Your task to perform on an android device: toggle translation in the chrome app Image 0: 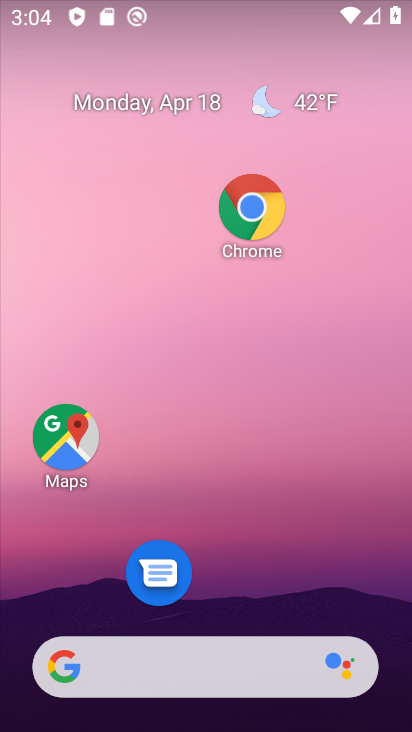
Step 0: click (368, 196)
Your task to perform on an android device: toggle translation in the chrome app Image 1: 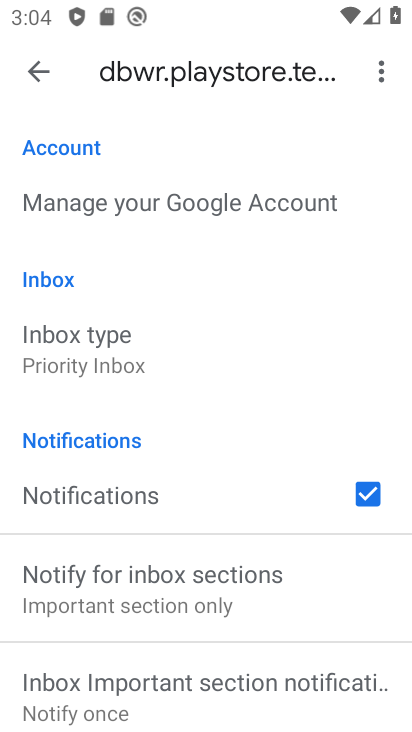
Step 1: drag from (120, 558) to (201, 379)
Your task to perform on an android device: toggle translation in the chrome app Image 2: 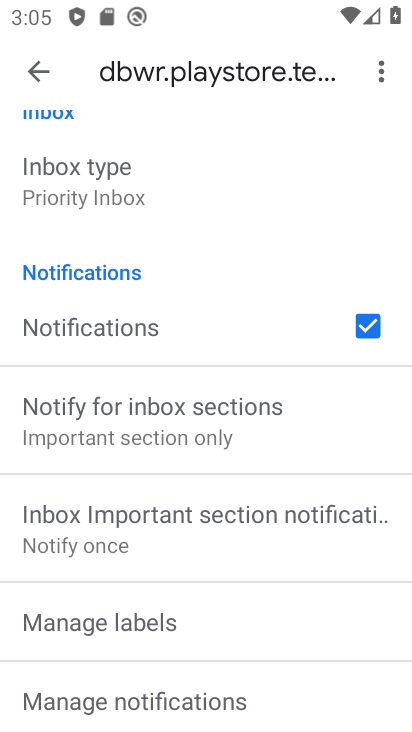
Step 2: press home button
Your task to perform on an android device: toggle translation in the chrome app Image 3: 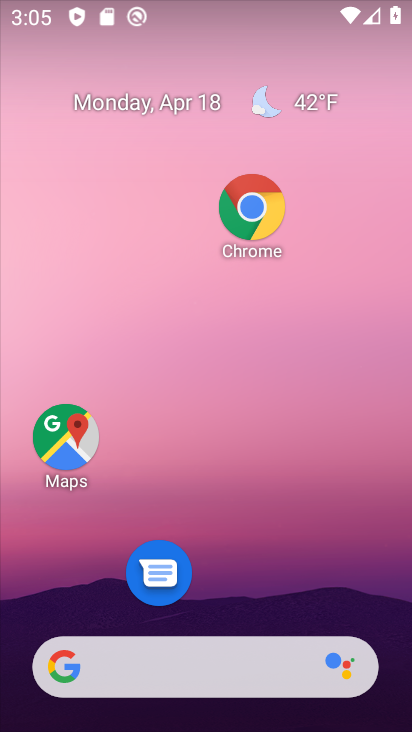
Step 3: drag from (223, 580) to (297, 405)
Your task to perform on an android device: toggle translation in the chrome app Image 4: 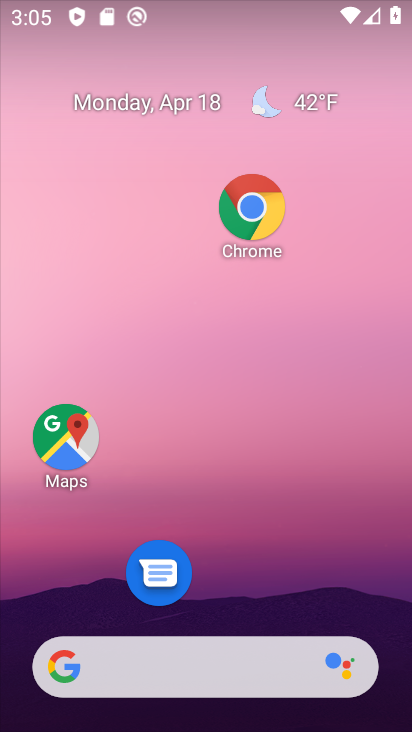
Step 4: drag from (216, 593) to (299, 339)
Your task to perform on an android device: toggle translation in the chrome app Image 5: 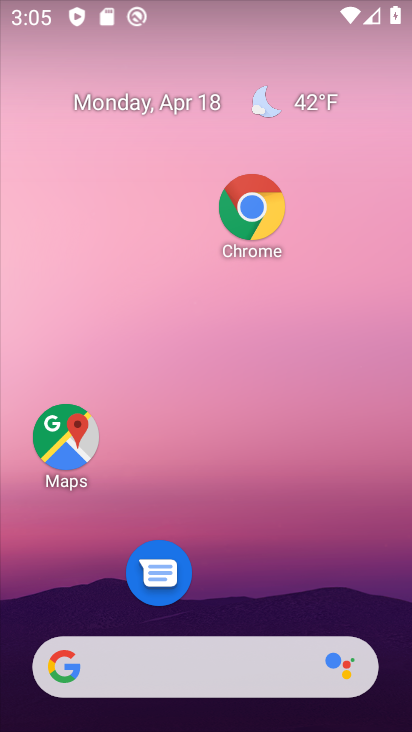
Step 5: drag from (211, 617) to (203, 174)
Your task to perform on an android device: toggle translation in the chrome app Image 6: 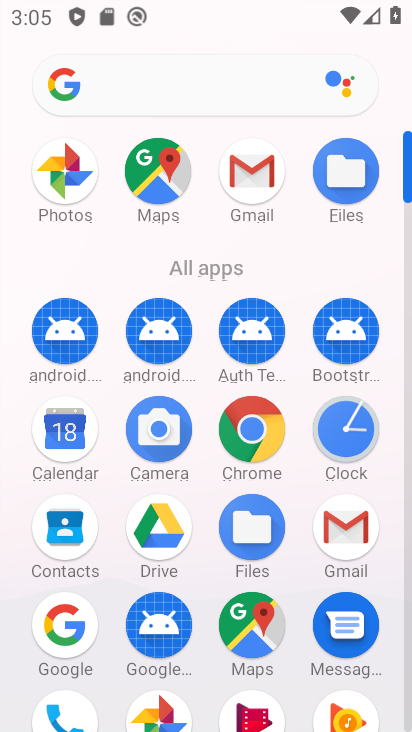
Step 6: click (261, 418)
Your task to perform on an android device: toggle translation in the chrome app Image 7: 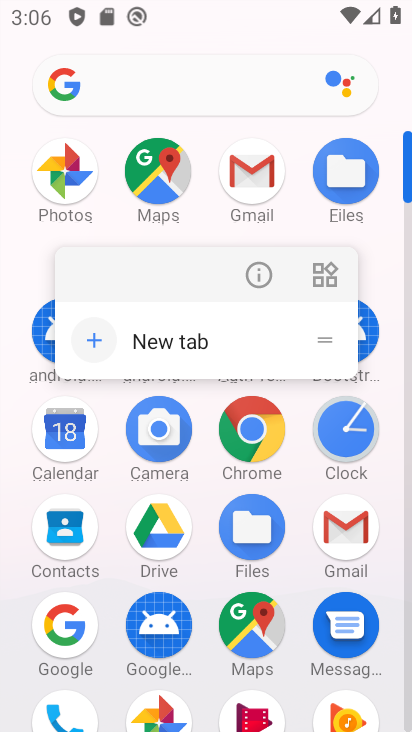
Step 7: click (254, 250)
Your task to perform on an android device: toggle translation in the chrome app Image 8: 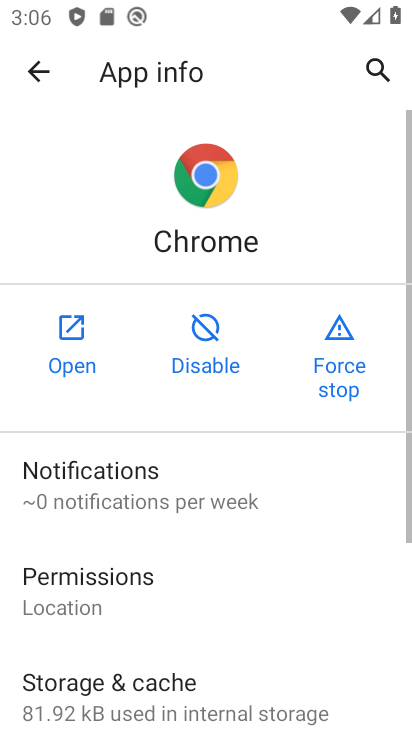
Step 8: click (72, 326)
Your task to perform on an android device: toggle translation in the chrome app Image 9: 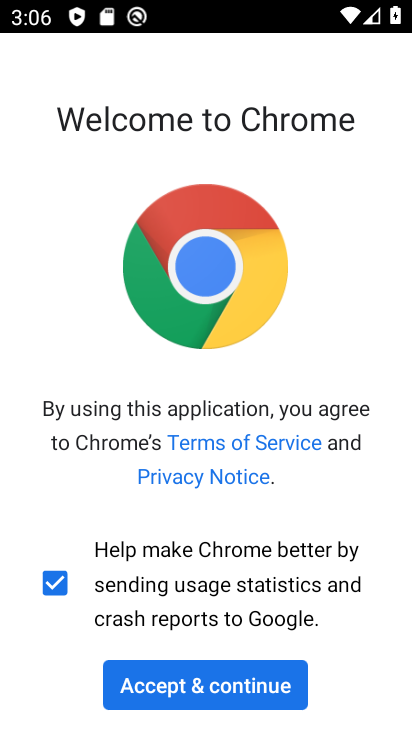
Step 9: click (169, 690)
Your task to perform on an android device: toggle translation in the chrome app Image 10: 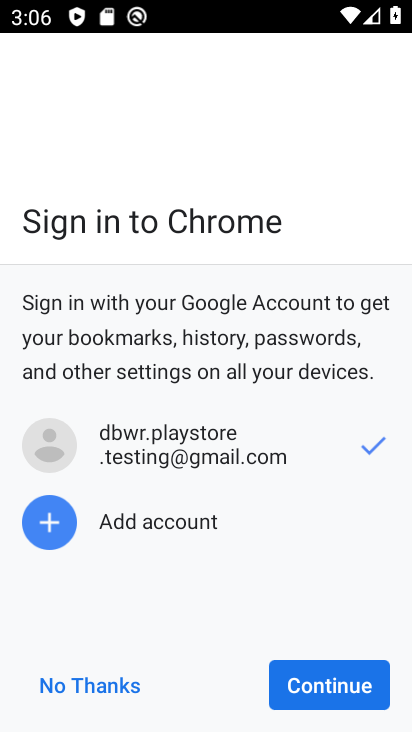
Step 10: click (329, 678)
Your task to perform on an android device: toggle translation in the chrome app Image 11: 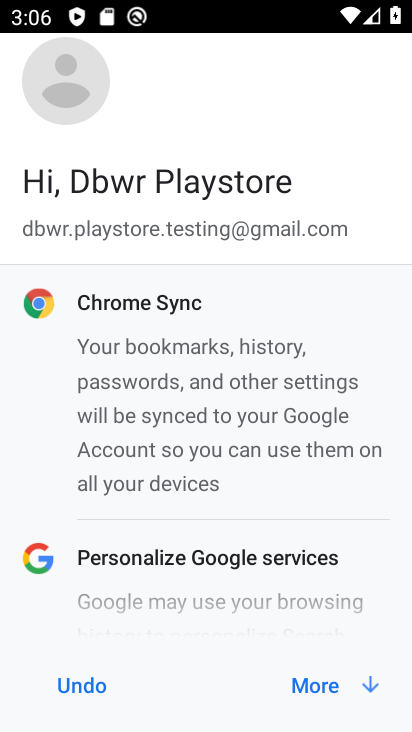
Step 11: click (303, 693)
Your task to perform on an android device: toggle translation in the chrome app Image 12: 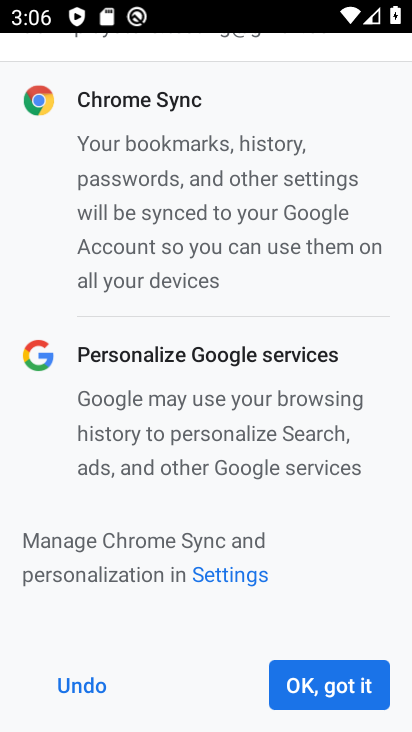
Step 12: click (329, 691)
Your task to perform on an android device: toggle translation in the chrome app Image 13: 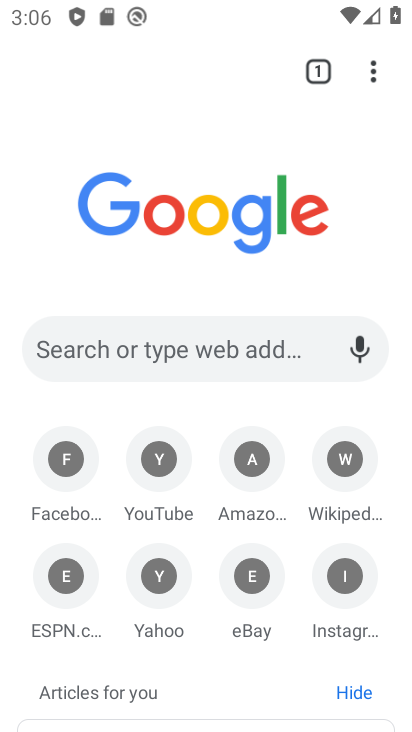
Step 13: click (370, 71)
Your task to perform on an android device: toggle translation in the chrome app Image 14: 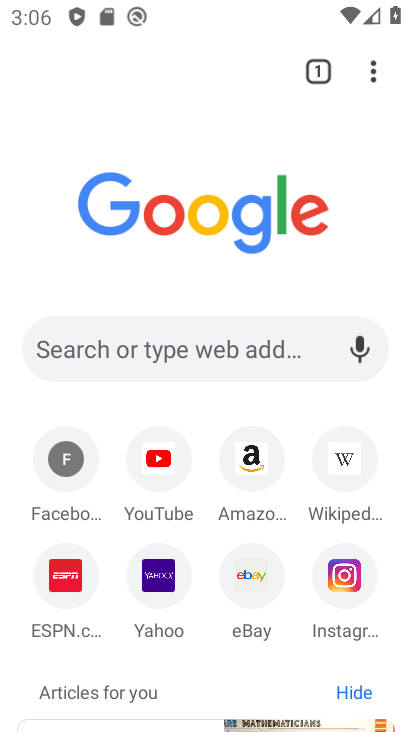
Step 14: click (366, 65)
Your task to perform on an android device: toggle translation in the chrome app Image 15: 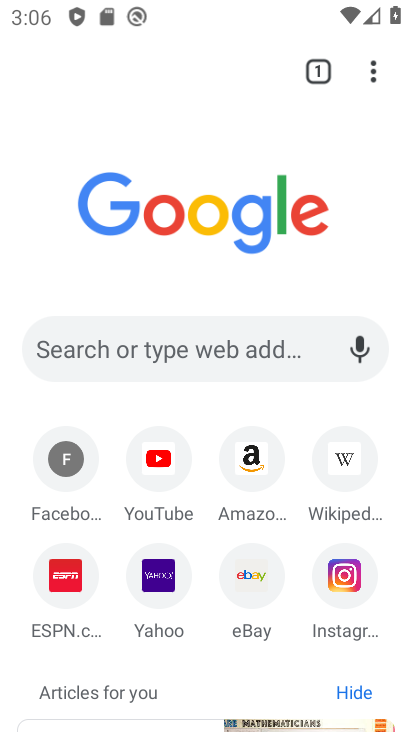
Step 15: drag from (371, 66) to (170, 590)
Your task to perform on an android device: toggle translation in the chrome app Image 16: 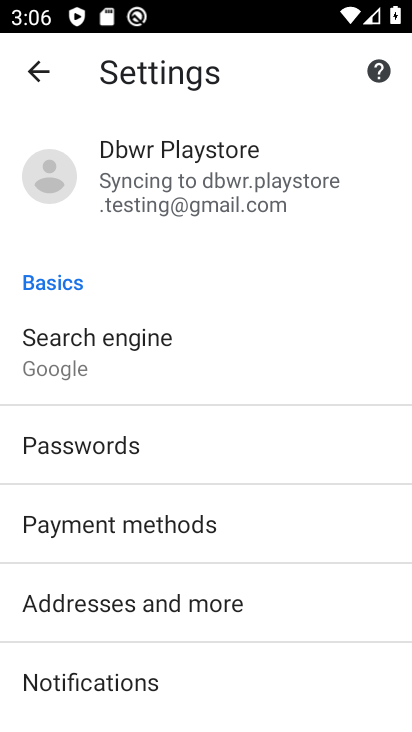
Step 16: drag from (229, 579) to (362, 75)
Your task to perform on an android device: toggle translation in the chrome app Image 17: 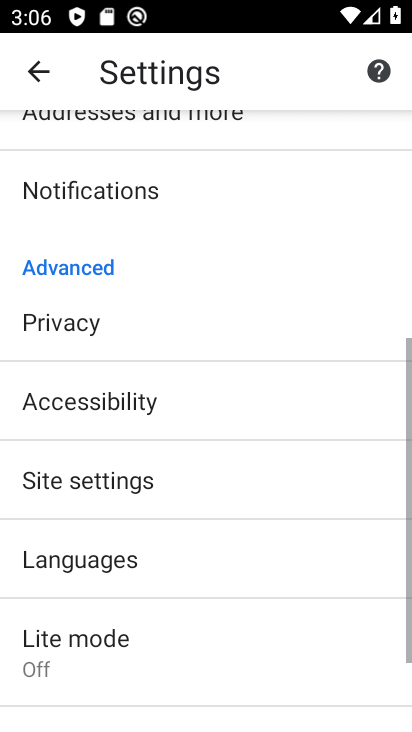
Step 17: drag from (268, 529) to (328, 26)
Your task to perform on an android device: toggle translation in the chrome app Image 18: 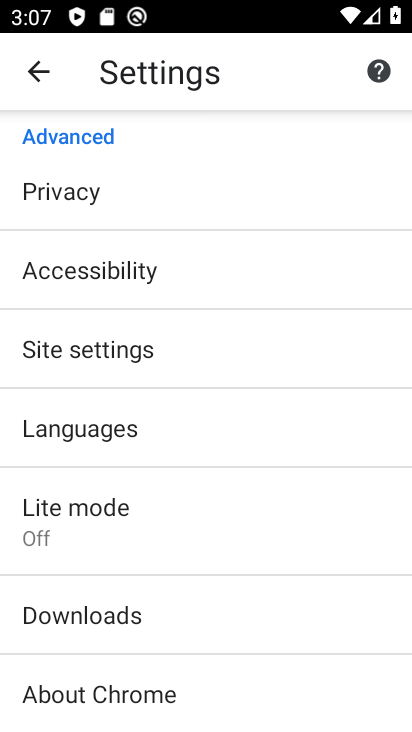
Step 18: drag from (121, 637) to (164, 413)
Your task to perform on an android device: toggle translation in the chrome app Image 19: 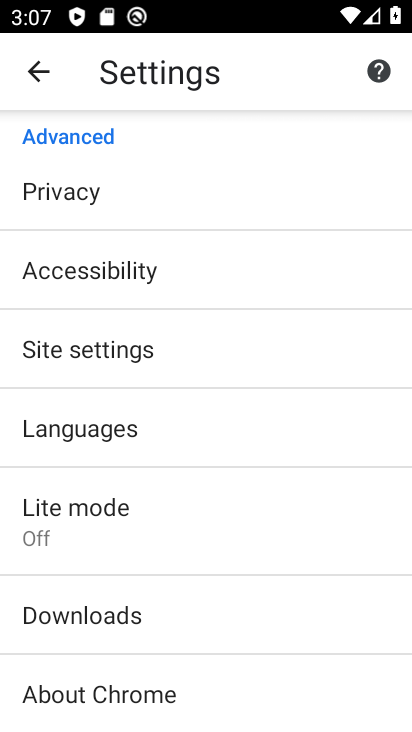
Step 19: drag from (154, 624) to (300, 140)
Your task to perform on an android device: toggle translation in the chrome app Image 20: 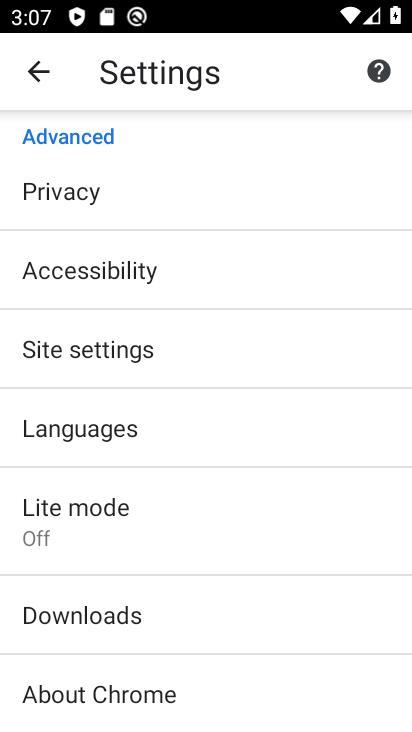
Step 20: click (105, 416)
Your task to perform on an android device: toggle translation in the chrome app Image 21: 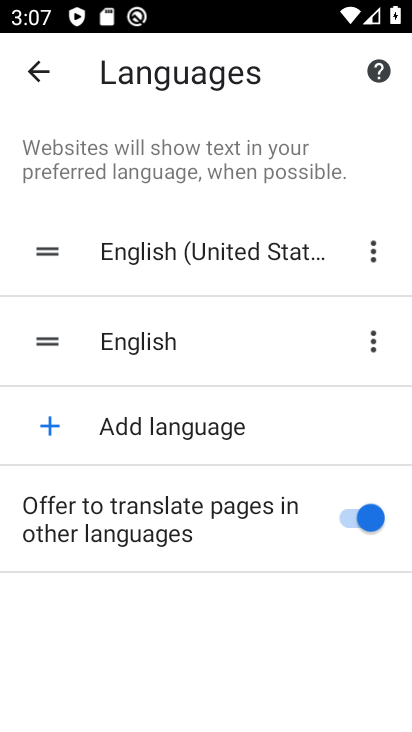
Step 21: click (253, 532)
Your task to perform on an android device: toggle translation in the chrome app Image 22: 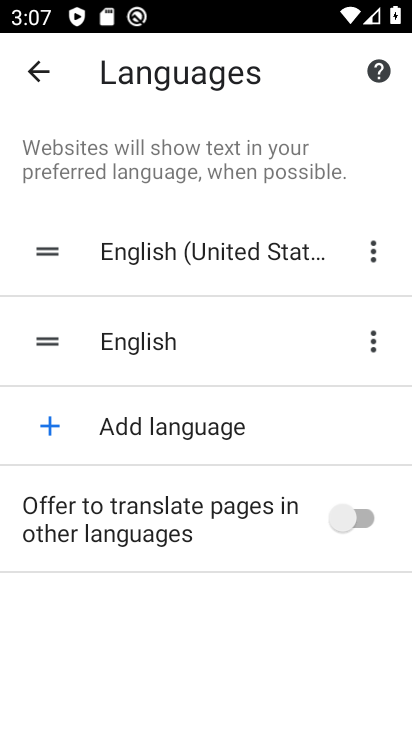
Step 22: task complete